Your task to perform on an android device: Open Amazon Image 0: 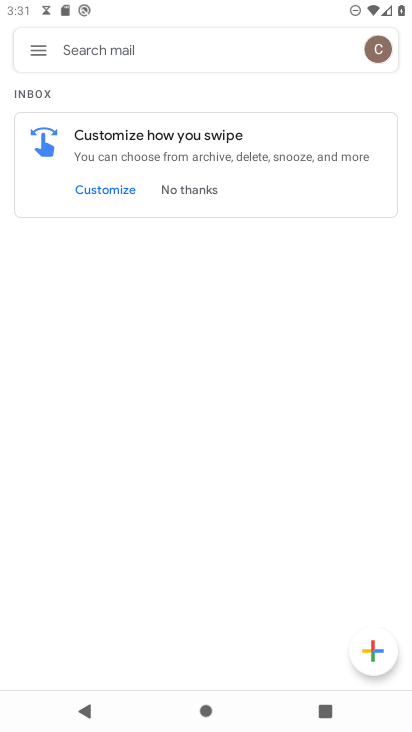
Step 0: press home button
Your task to perform on an android device: Open Amazon Image 1: 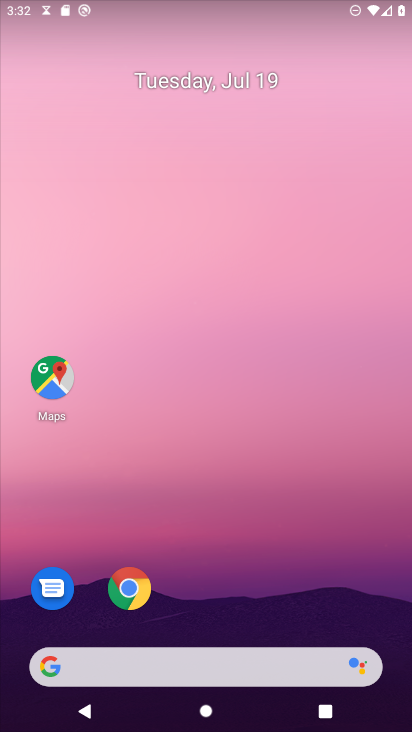
Step 1: click (138, 582)
Your task to perform on an android device: Open Amazon Image 2: 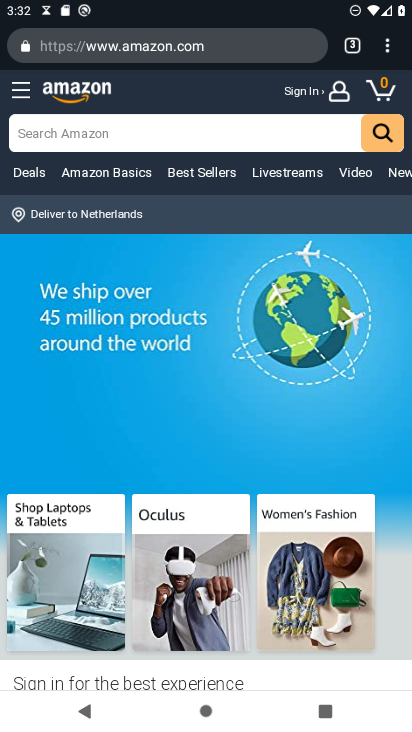
Step 2: task complete